Your task to perform on an android device: Open calendar and show me the second week of next month Image 0: 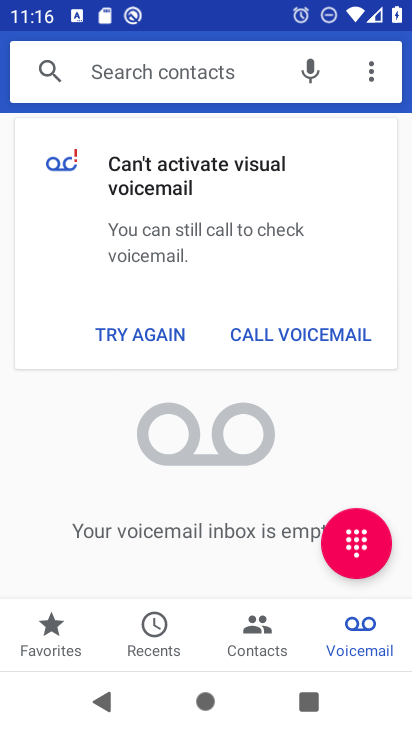
Step 0: press home button
Your task to perform on an android device: Open calendar and show me the second week of next month Image 1: 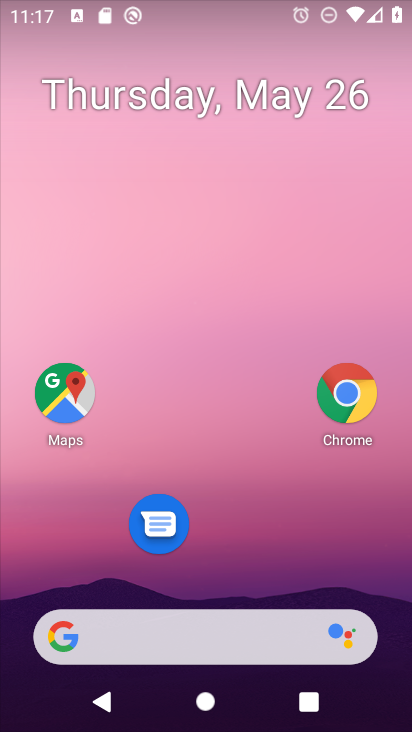
Step 1: drag from (254, 522) to (309, 21)
Your task to perform on an android device: Open calendar and show me the second week of next month Image 2: 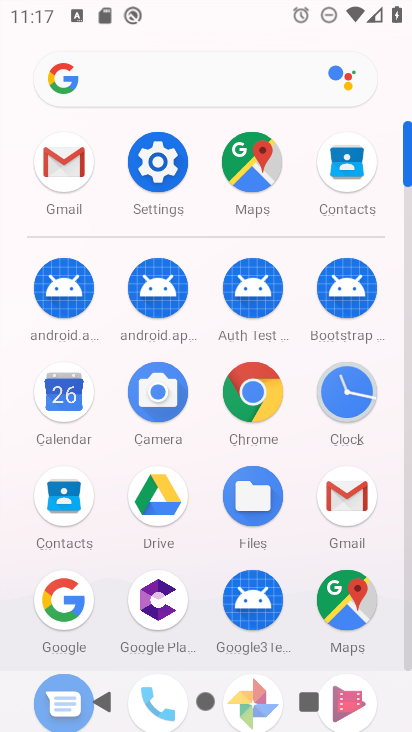
Step 2: click (66, 397)
Your task to perform on an android device: Open calendar and show me the second week of next month Image 3: 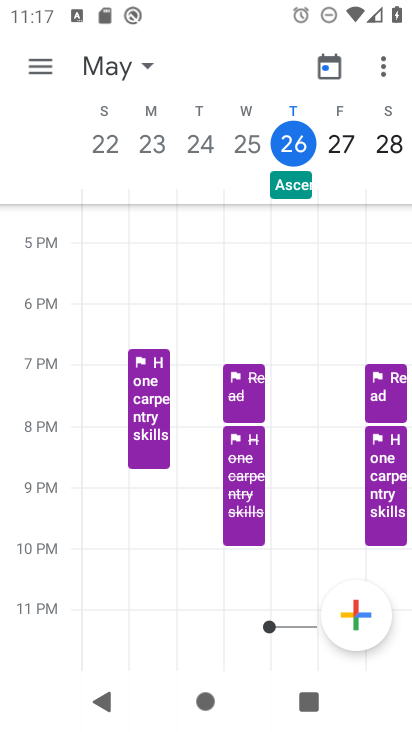
Step 3: task complete